Your task to perform on an android device: Open Google Chrome Image 0: 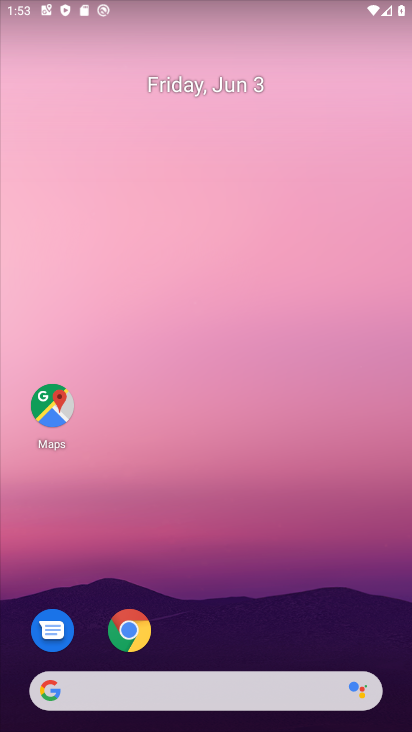
Step 0: click (127, 635)
Your task to perform on an android device: Open Google Chrome Image 1: 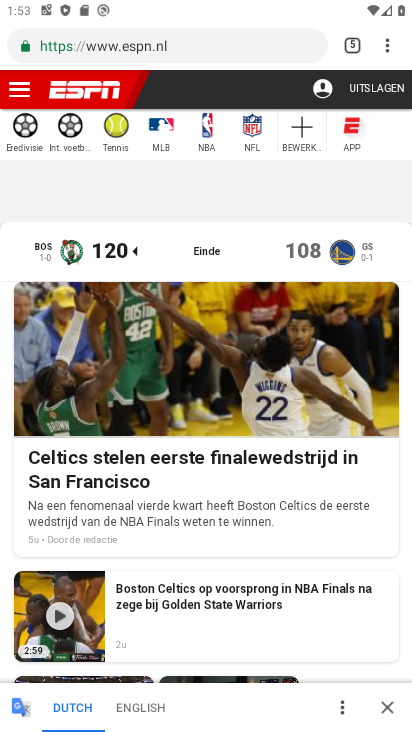
Step 1: task complete